Your task to perform on an android device: Is it going to rain this weekend? Image 0: 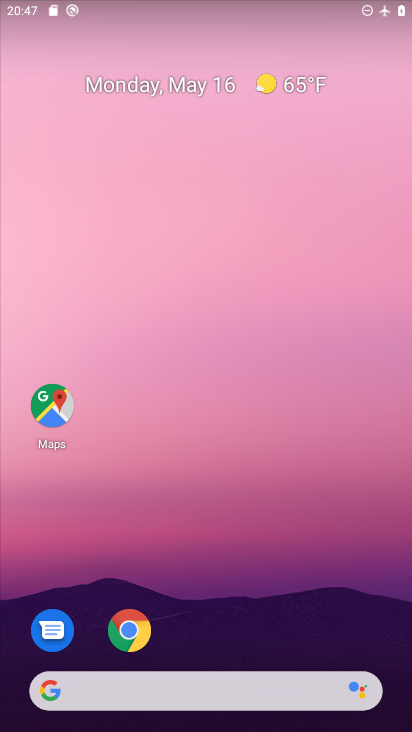
Step 0: drag from (199, 647) to (193, 251)
Your task to perform on an android device: Is it going to rain this weekend? Image 1: 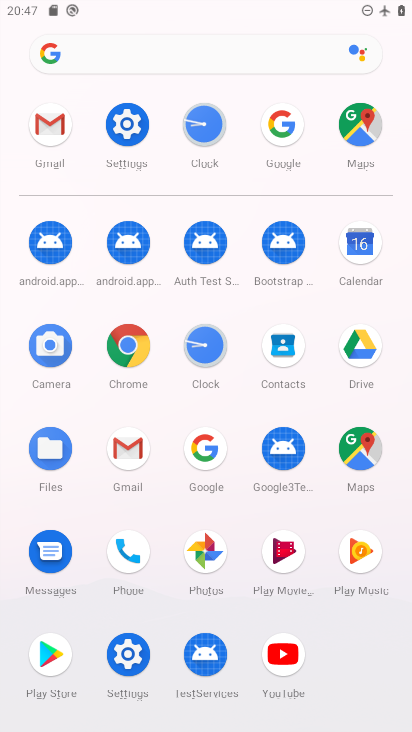
Step 1: click (198, 435)
Your task to perform on an android device: Is it going to rain this weekend? Image 2: 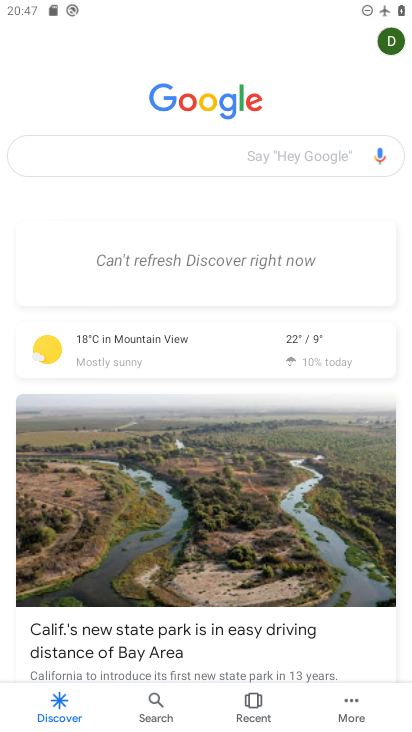
Step 2: click (200, 336)
Your task to perform on an android device: Is it going to rain this weekend? Image 3: 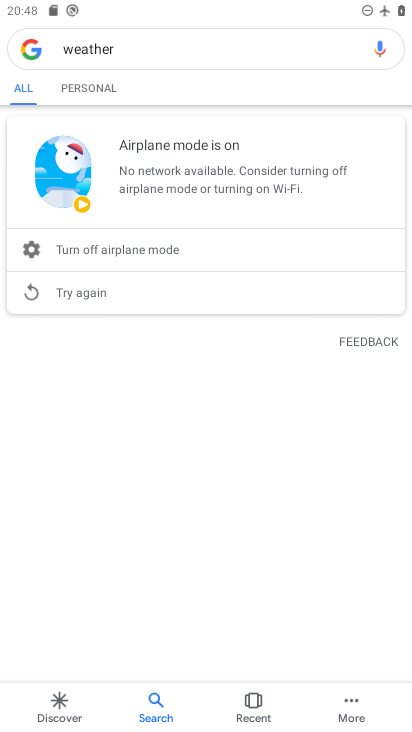
Step 3: task complete